Your task to perform on an android device: Open Google Chrome and open the bookmarks view Image 0: 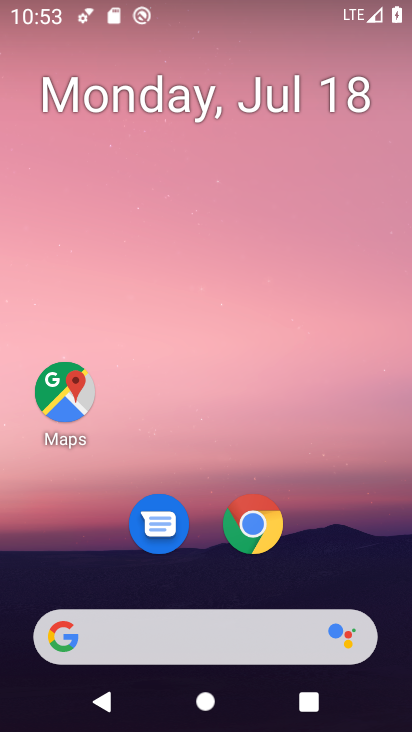
Step 0: click (261, 524)
Your task to perform on an android device: Open Google Chrome and open the bookmarks view Image 1: 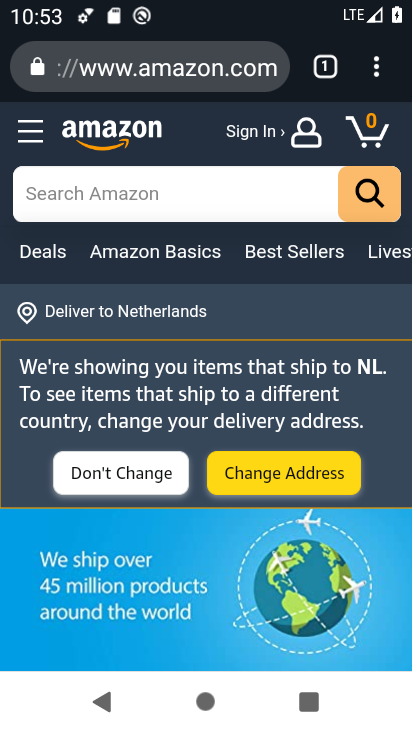
Step 1: click (376, 71)
Your task to perform on an android device: Open Google Chrome and open the bookmarks view Image 2: 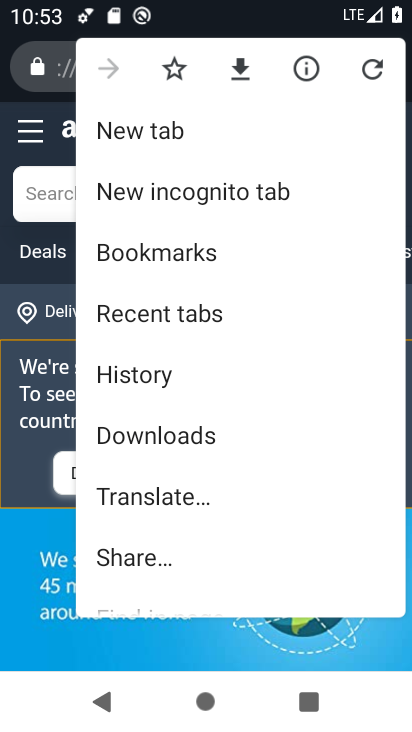
Step 2: click (192, 254)
Your task to perform on an android device: Open Google Chrome and open the bookmarks view Image 3: 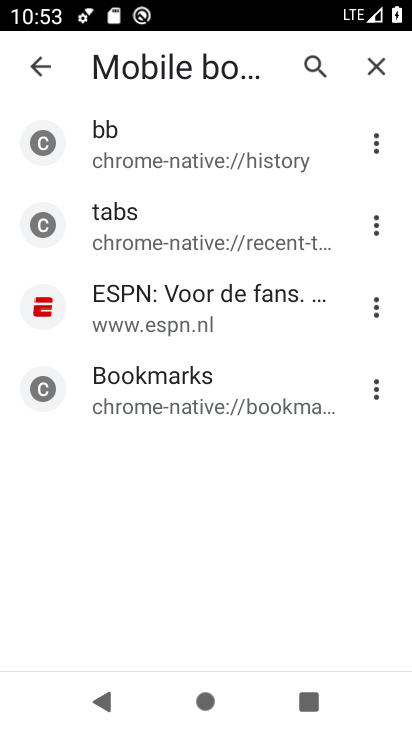
Step 3: task complete